Your task to perform on an android device: open the mobile data screen to see how much data has been used Image 0: 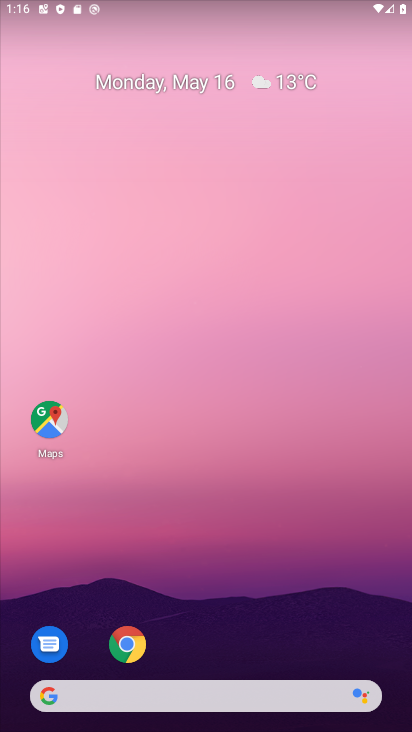
Step 0: drag from (243, 668) to (273, 13)
Your task to perform on an android device: open the mobile data screen to see how much data has been used Image 1: 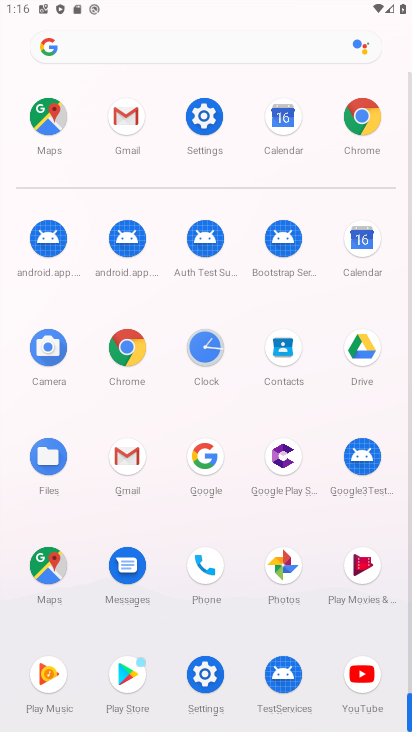
Step 1: click (202, 147)
Your task to perform on an android device: open the mobile data screen to see how much data has been used Image 2: 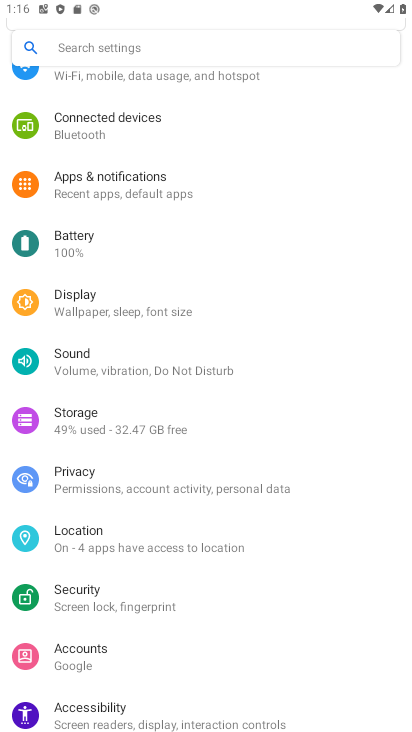
Step 2: drag from (201, 173) to (179, 558)
Your task to perform on an android device: open the mobile data screen to see how much data has been used Image 3: 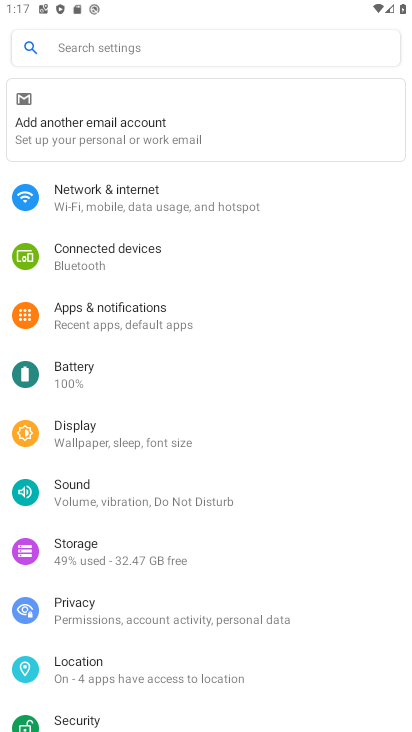
Step 3: click (176, 208)
Your task to perform on an android device: open the mobile data screen to see how much data has been used Image 4: 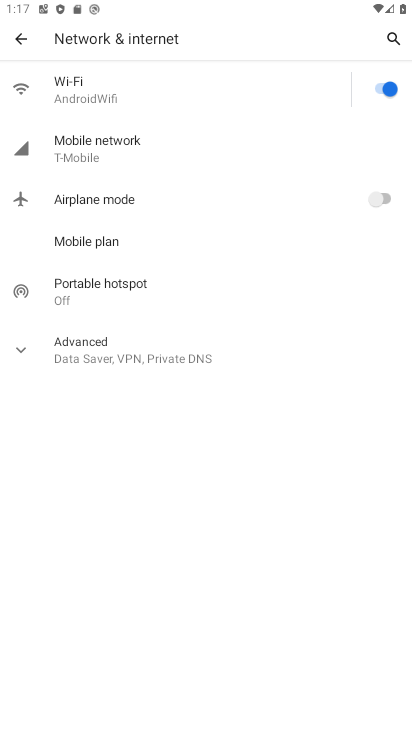
Step 4: click (183, 154)
Your task to perform on an android device: open the mobile data screen to see how much data has been used Image 5: 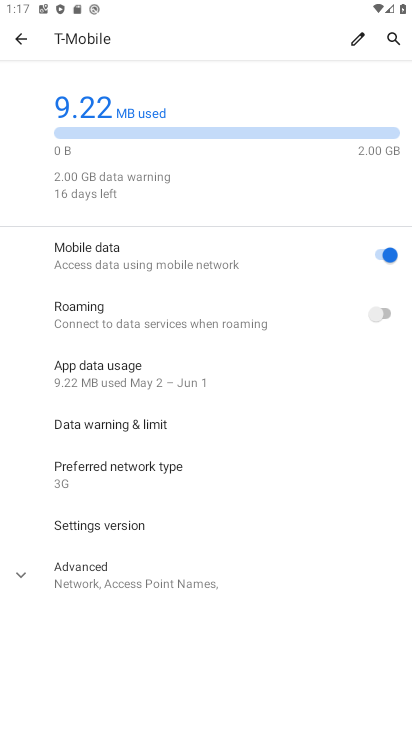
Step 5: click (192, 379)
Your task to perform on an android device: open the mobile data screen to see how much data has been used Image 6: 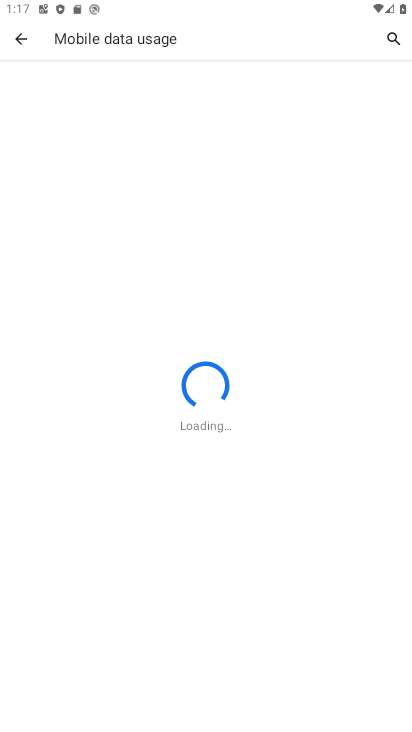
Step 6: task complete